Your task to perform on an android device: Open privacy settings Image 0: 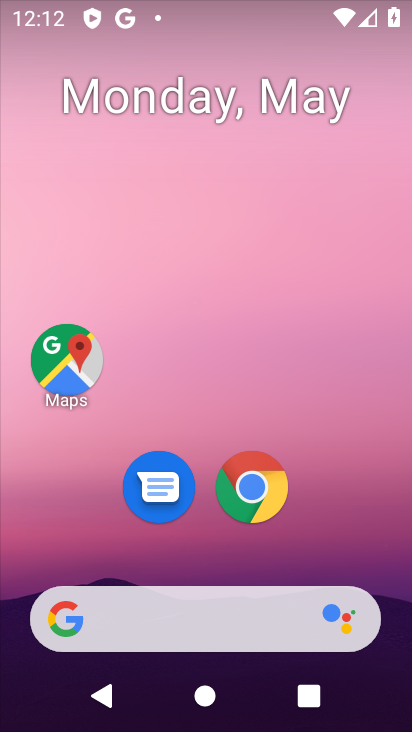
Step 0: drag from (315, 552) to (243, 99)
Your task to perform on an android device: Open privacy settings Image 1: 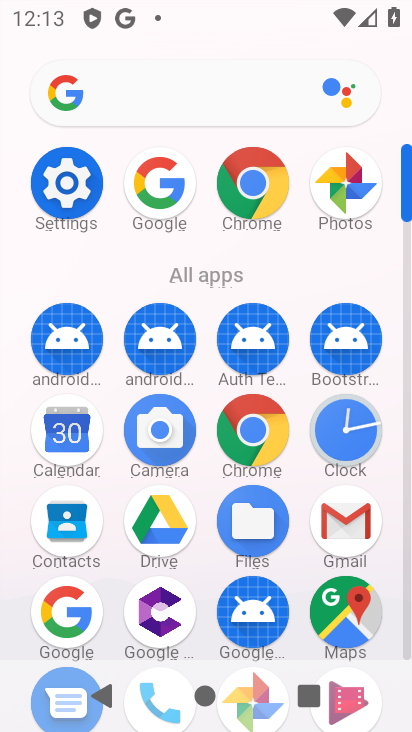
Step 1: click (67, 182)
Your task to perform on an android device: Open privacy settings Image 2: 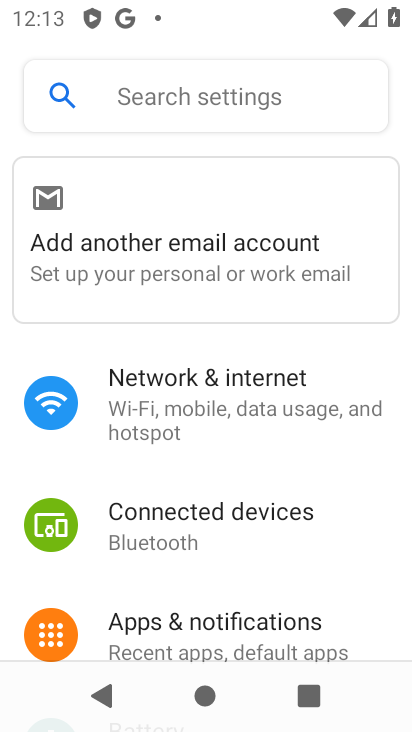
Step 2: drag from (158, 480) to (177, 329)
Your task to perform on an android device: Open privacy settings Image 3: 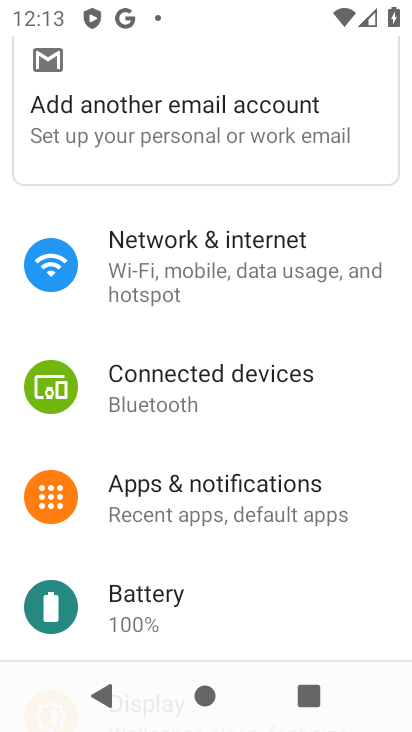
Step 3: drag from (130, 552) to (224, 432)
Your task to perform on an android device: Open privacy settings Image 4: 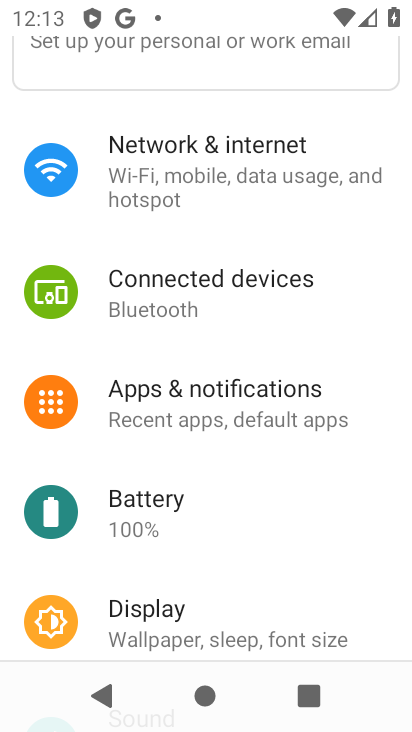
Step 4: drag from (155, 561) to (254, 410)
Your task to perform on an android device: Open privacy settings Image 5: 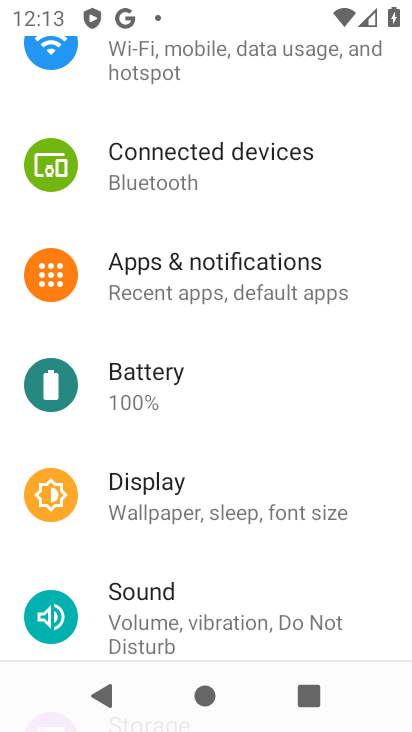
Step 5: drag from (153, 559) to (283, 419)
Your task to perform on an android device: Open privacy settings Image 6: 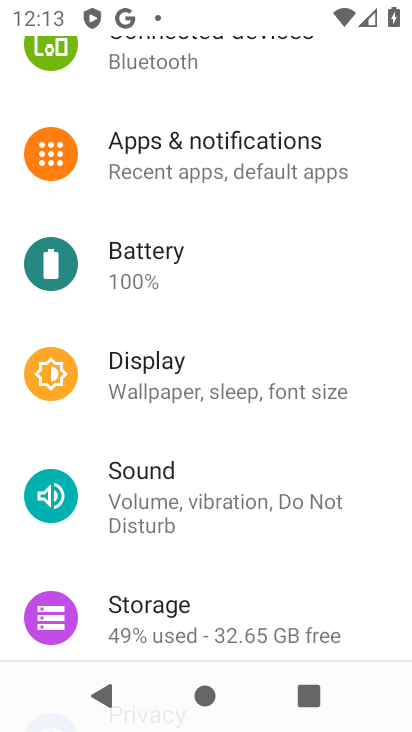
Step 6: drag from (164, 565) to (273, 442)
Your task to perform on an android device: Open privacy settings Image 7: 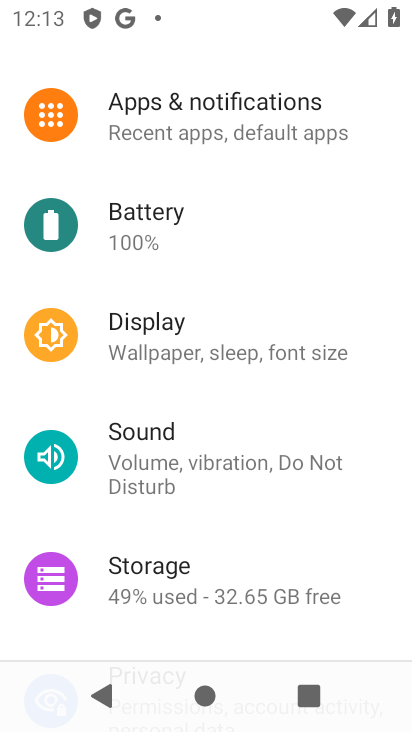
Step 7: drag from (137, 625) to (262, 484)
Your task to perform on an android device: Open privacy settings Image 8: 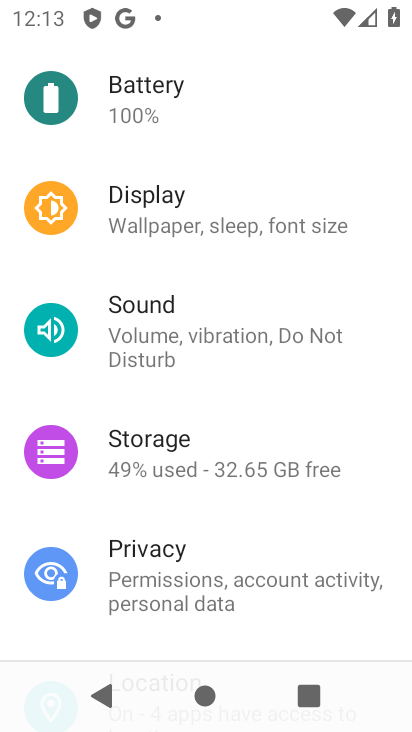
Step 8: click (171, 552)
Your task to perform on an android device: Open privacy settings Image 9: 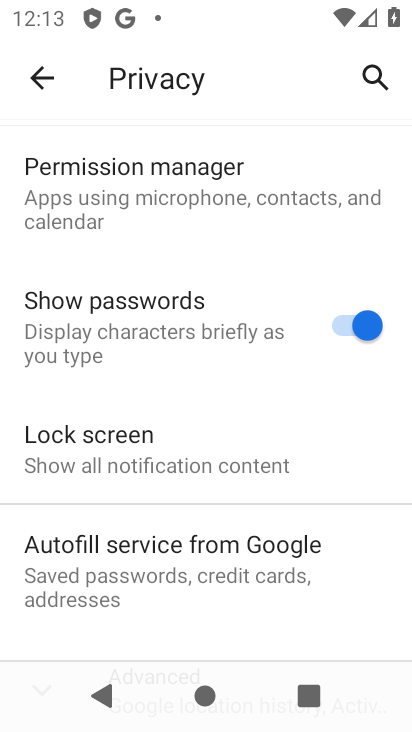
Step 9: task complete